Your task to perform on an android device: Go to privacy settings Image 0: 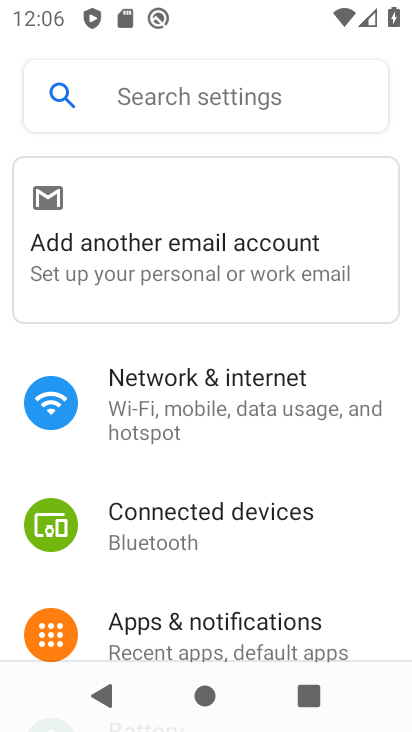
Step 0: drag from (164, 630) to (196, 140)
Your task to perform on an android device: Go to privacy settings Image 1: 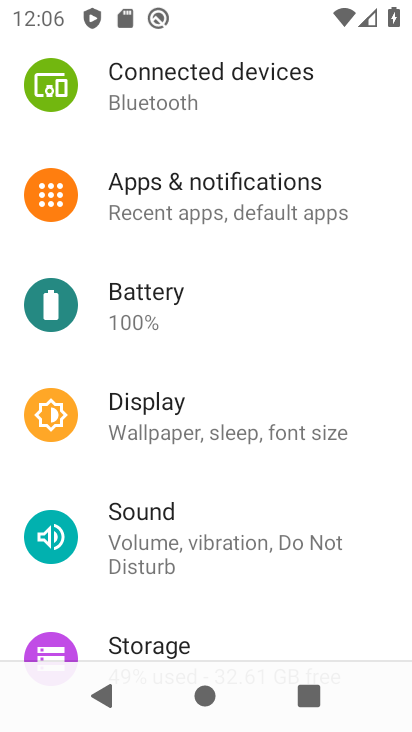
Step 1: drag from (190, 594) to (189, 151)
Your task to perform on an android device: Go to privacy settings Image 2: 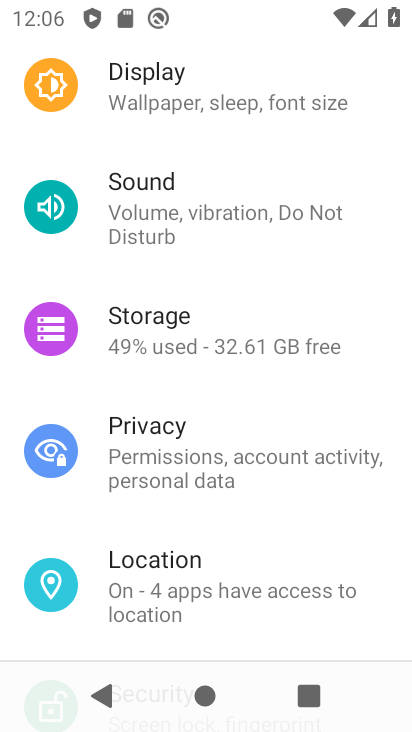
Step 2: click (166, 441)
Your task to perform on an android device: Go to privacy settings Image 3: 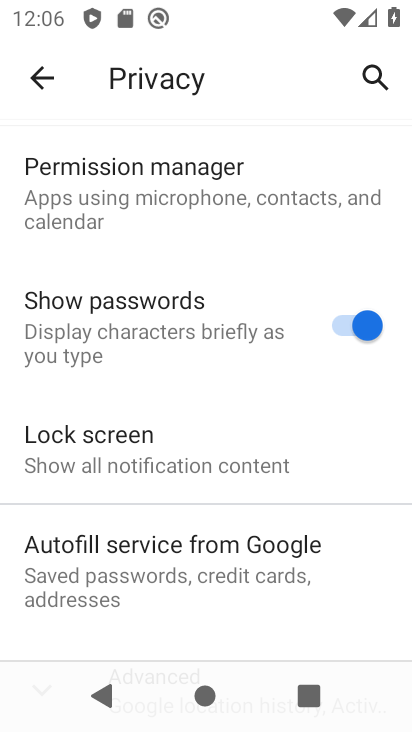
Step 3: task complete